Your task to perform on an android device: open chrome and create a bookmark for the current page Image 0: 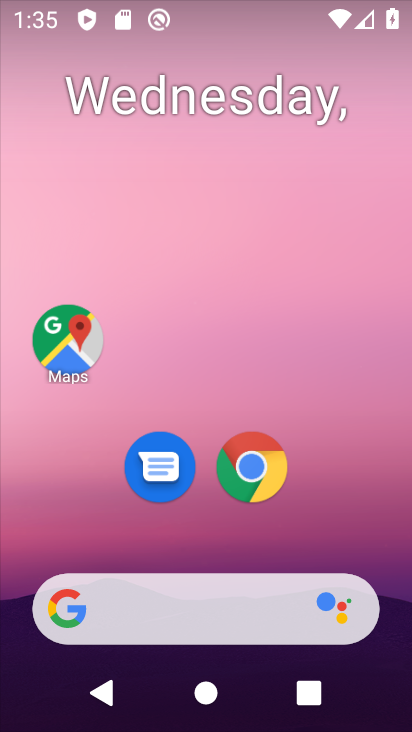
Step 0: drag from (323, 408) to (278, 69)
Your task to perform on an android device: open chrome and create a bookmark for the current page Image 1: 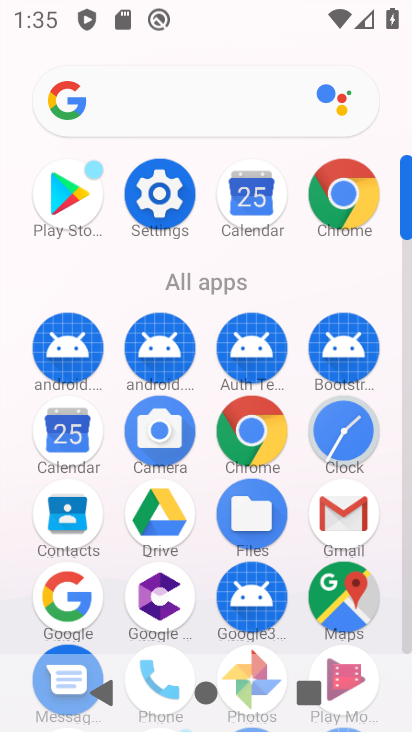
Step 1: click (349, 181)
Your task to perform on an android device: open chrome and create a bookmark for the current page Image 2: 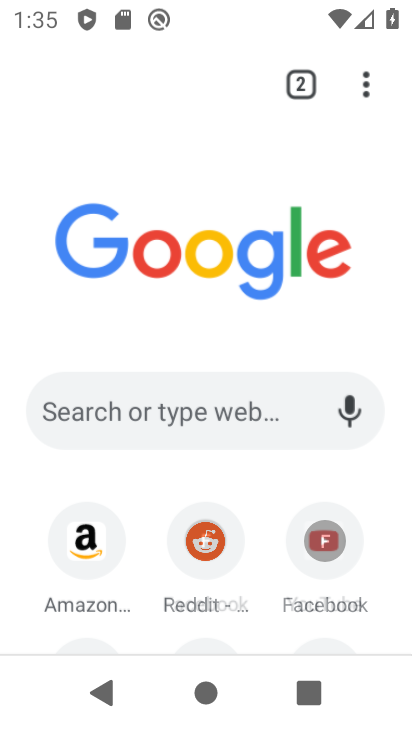
Step 2: click (363, 81)
Your task to perform on an android device: open chrome and create a bookmark for the current page Image 3: 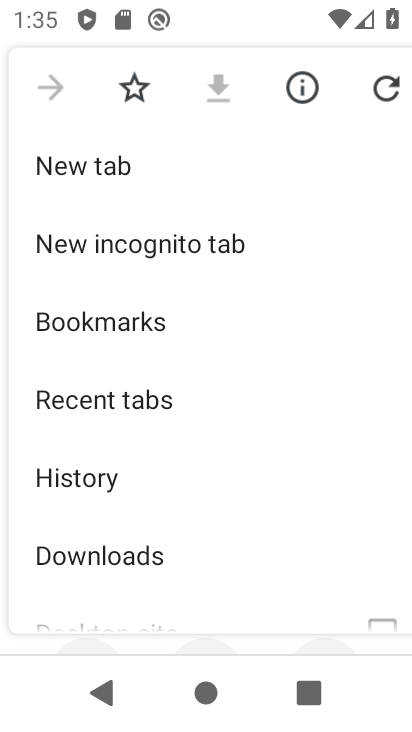
Step 3: click (137, 84)
Your task to perform on an android device: open chrome and create a bookmark for the current page Image 4: 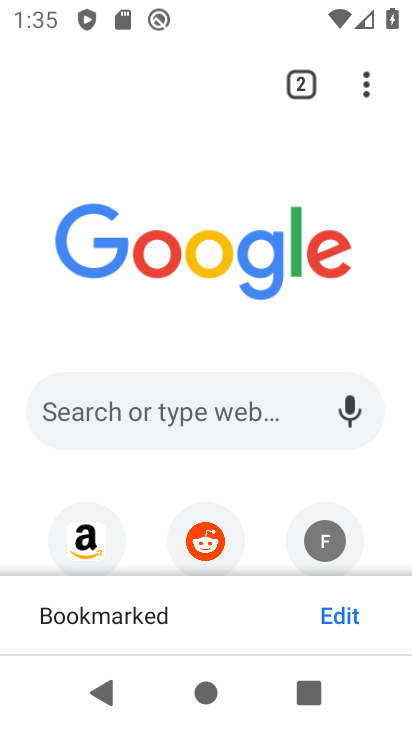
Step 4: task complete